Your task to perform on an android device: turn off translation in the chrome app Image 0: 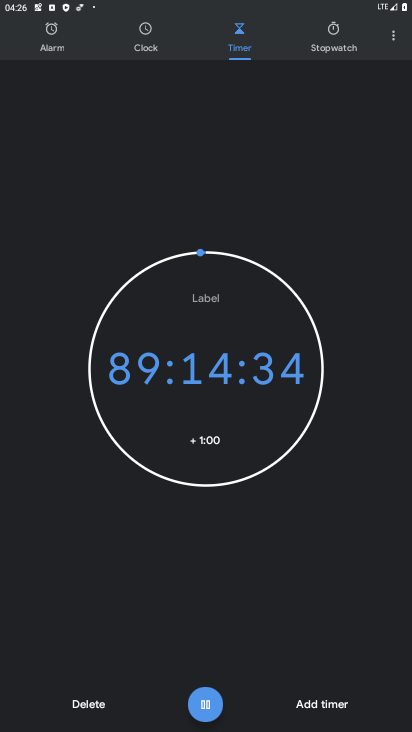
Step 0: press home button
Your task to perform on an android device: turn off translation in the chrome app Image 1: 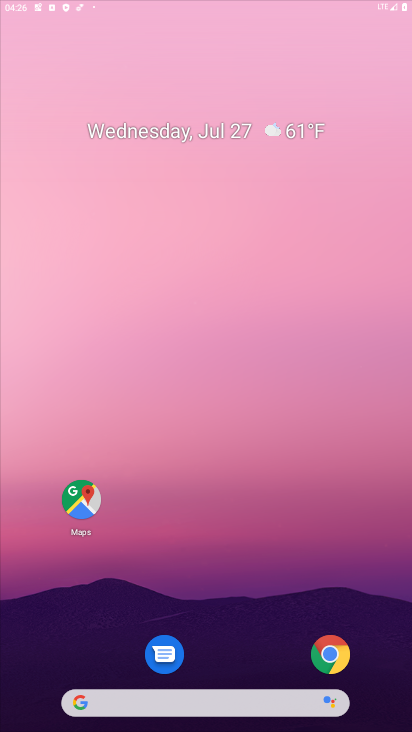
Step 1: drag from (256, 700) to (286, 46)
Your task to perform on an android device: turn off translation in the chrome app Image 2: 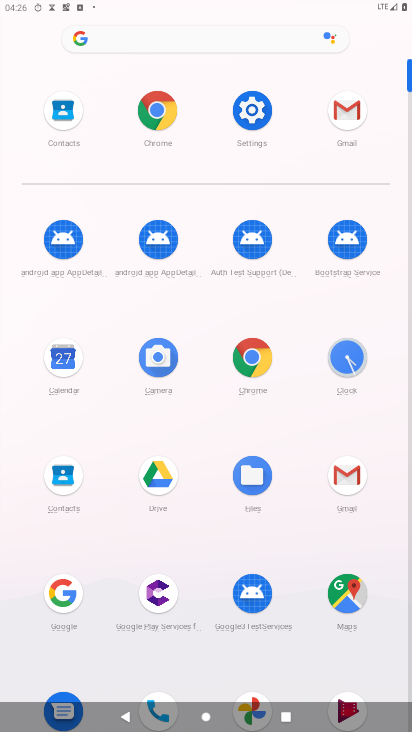
Step 2: click (246, 359)
Your task to perform on an android device: turn off translation in the chrome app Image 3: 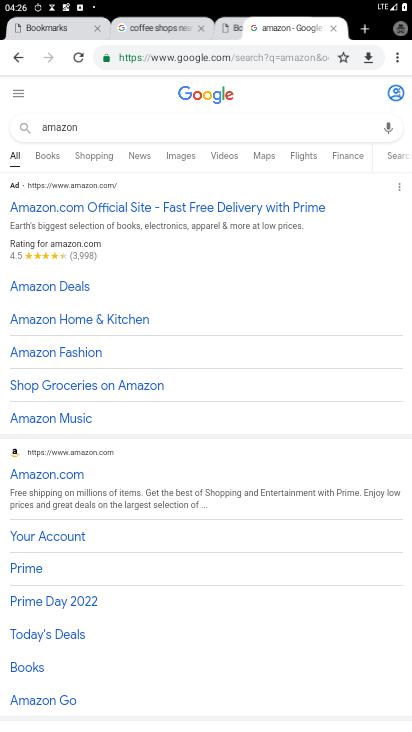
Step 3: click (387, 53)
Your task to perform on an android device: turn off translation in the chrome app Image 4: 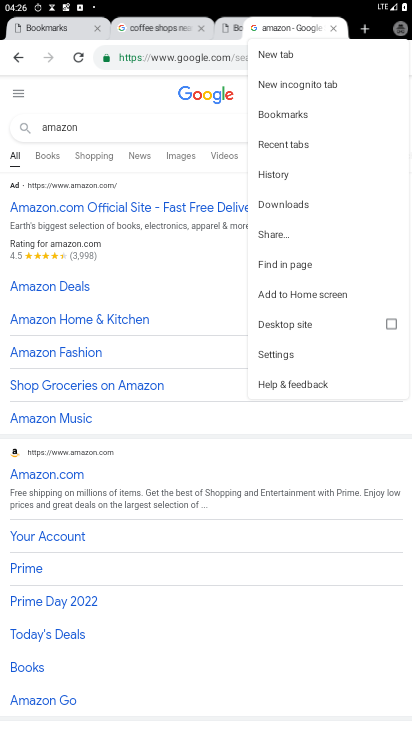
Step 4: click (287, 361)
Your task to perform on an android device: turn off translation in the chrome app Image 5: 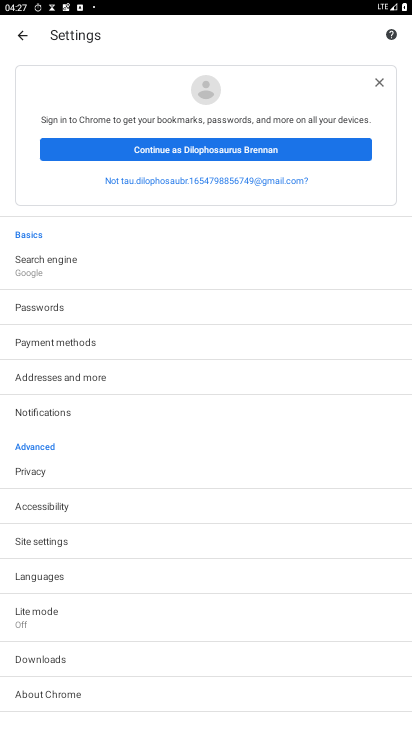
Step 5: click (80, 569)
Your task to perform on an android device: turn off translation in the chrome app Image 6: 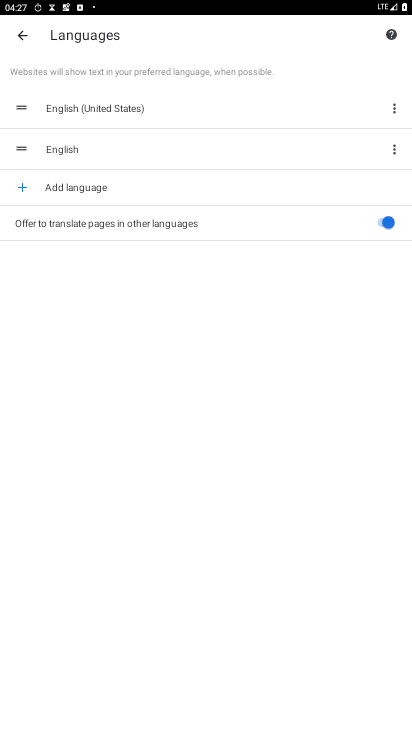
Step 6: click (390, 217)
Your task to perform on an android device: turn off translation in the chrome app Image 7: 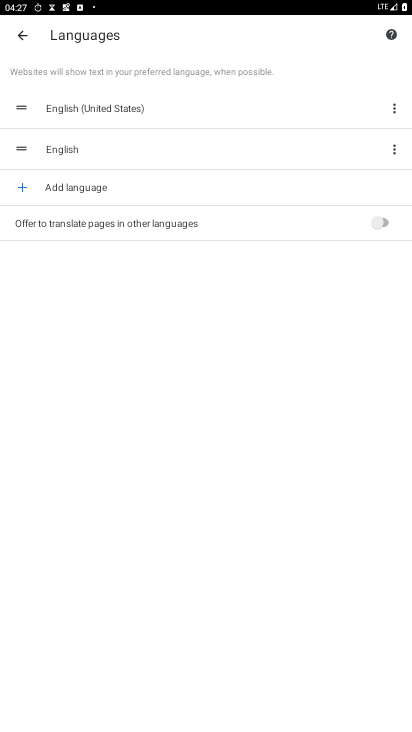
Step 7: task complete